Your task to perform on an android device: Open network settings Image 0: 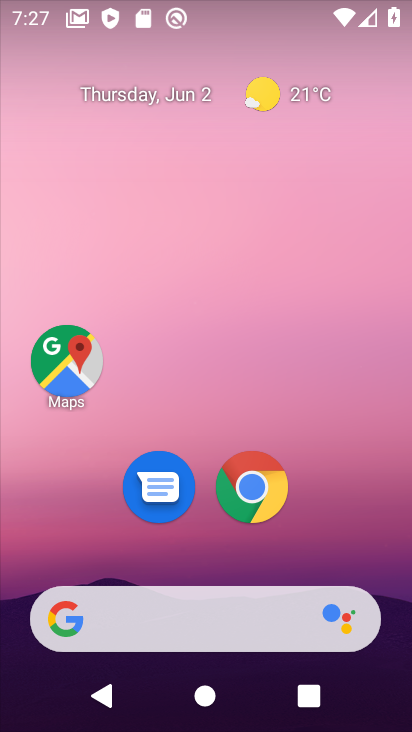
Step 0: drag from (222, 564) to (217, 175)
Your task to perform on an android device: Open network settings Image 1: 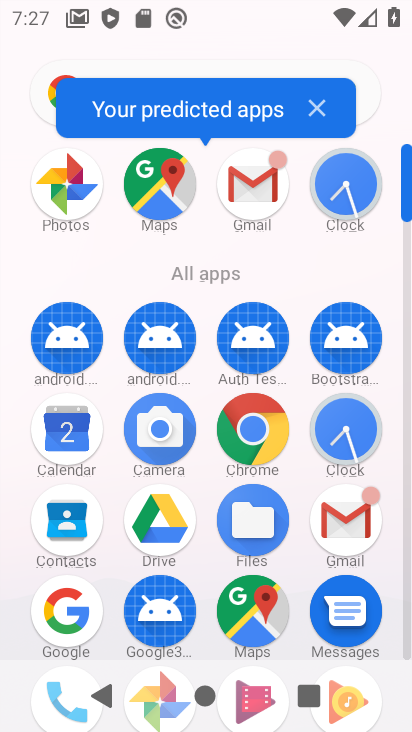
Step 1: drag from (207, 477) to (232, 92)
Your task to perform on an android device: Open network settings Image 2: 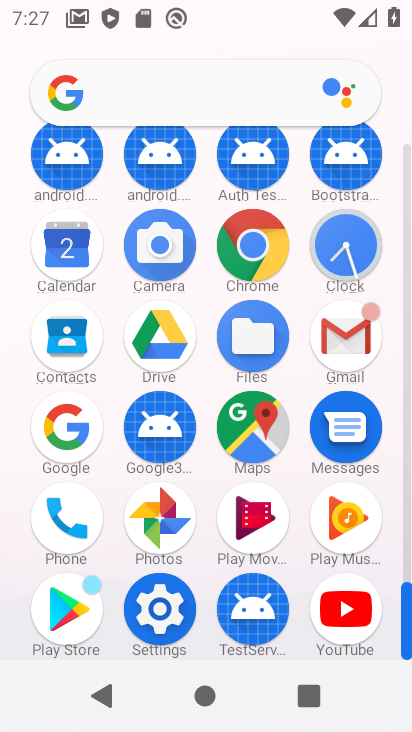
Step 2: click (167, 608)
Your task to perform on an android device: Open network settings Image 3: 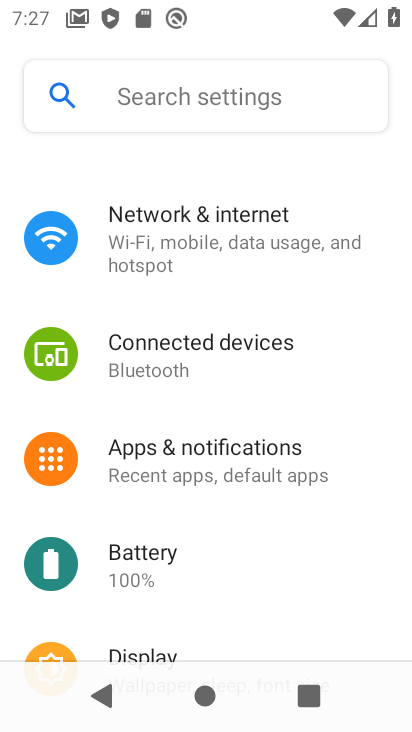
Step 3: click (144, 215)
Your task to perform on an android device: Open network settings Image 4: 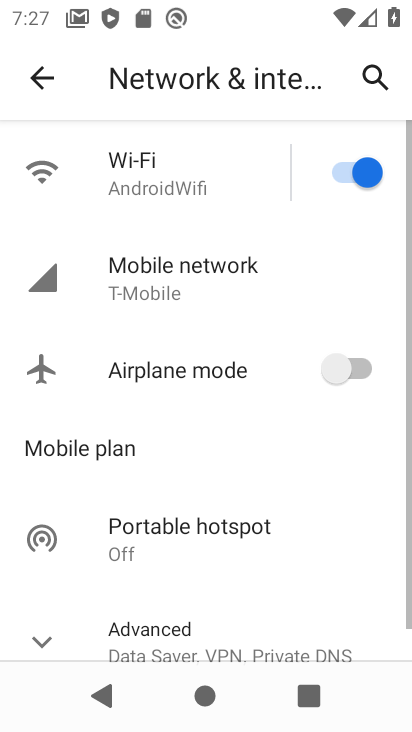
Step 4: task complete